Your task to perform on an android device: change notification settings in the gmail app Image 0: 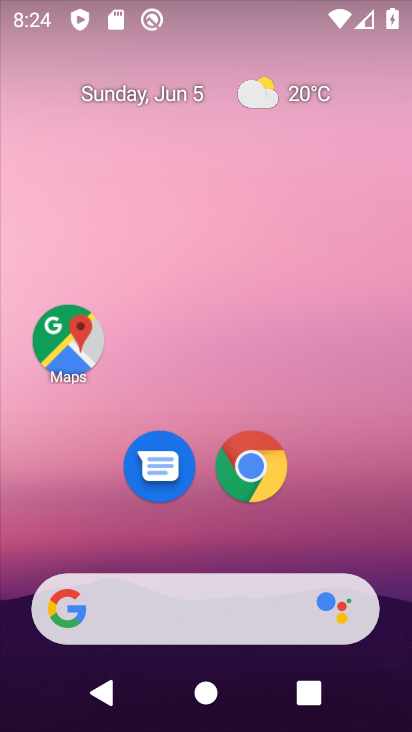
Step 0: drag from (176, 548) to (177, 185)
Your task to perform on an android device: change notification settings in the gmail app Image 1: 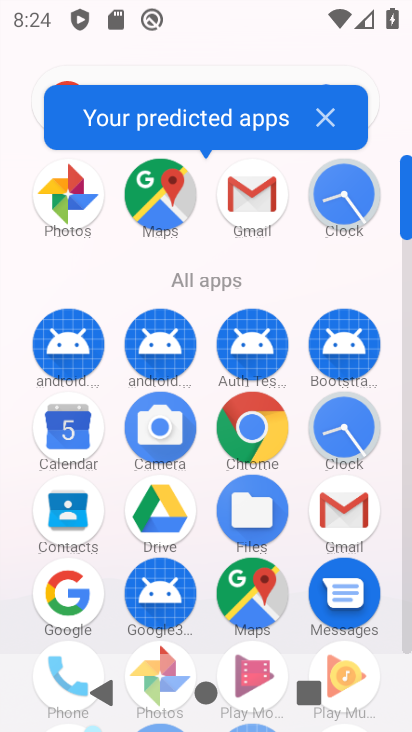
Step 1: click (261, 197)
Your task to perform on an android device: change notification settings in the gmail app Image 2: 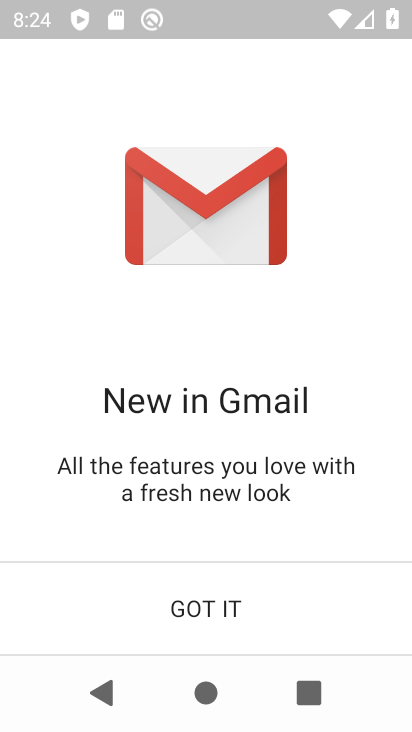
Step 2: click (215, 612)
Your task to perform on an android device: change notification settings in the gmail app Image 3: 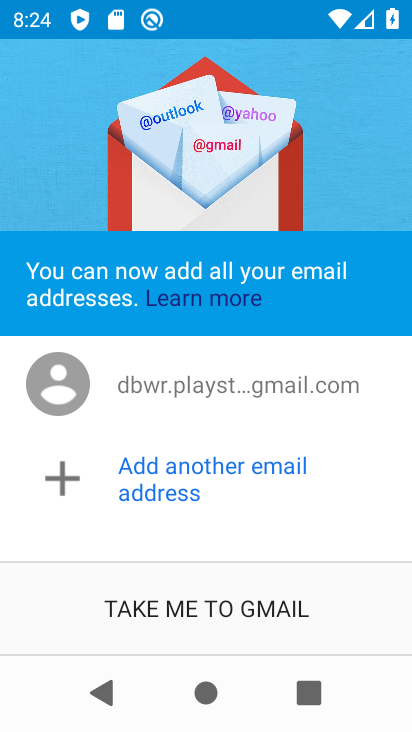
Step 3: click (133, 598)
Your task to perform on an android device: change notification settings in the gmail app Image 4: 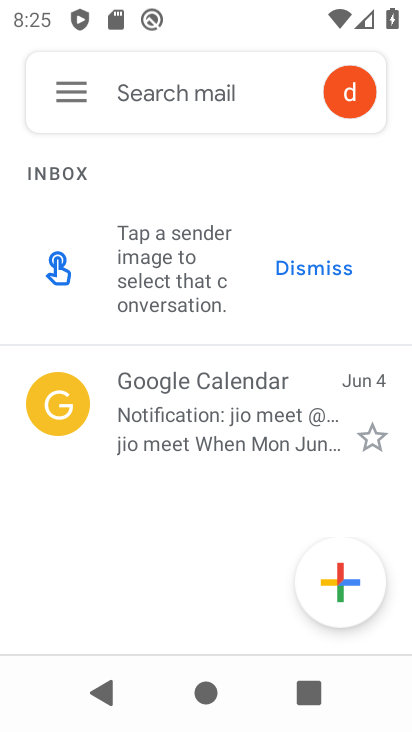
Step 4: click (75, 103)
Your task to perform on an android device: change notification settings in the gmail app Image 5: 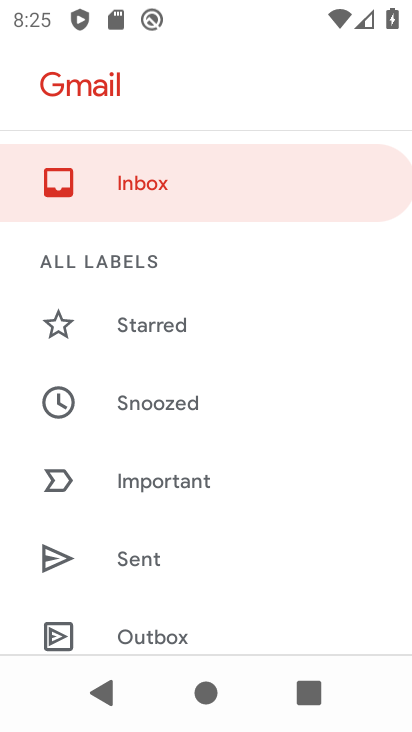
Step 5: drag from (226, 565) to (204, 151)
Your task to perform on an android device: change notification settings in the gmail app Image 6: 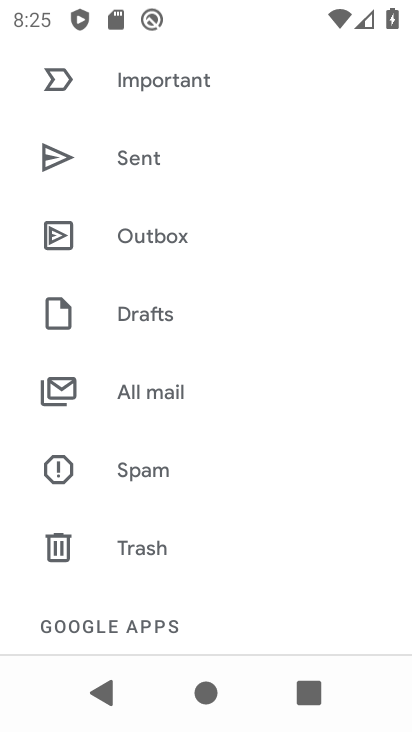
Step 6: drag from (206, 536) to (200, 63)
Your task to perform on an android device: change notification settings in the gmail app Image 7: 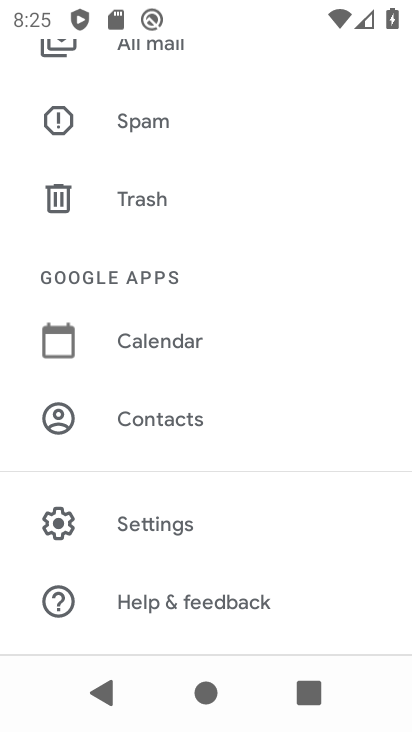
Step 7: click (185, 537)
Your task to perform on an android device: change notification settings in the gmail app Image 8: 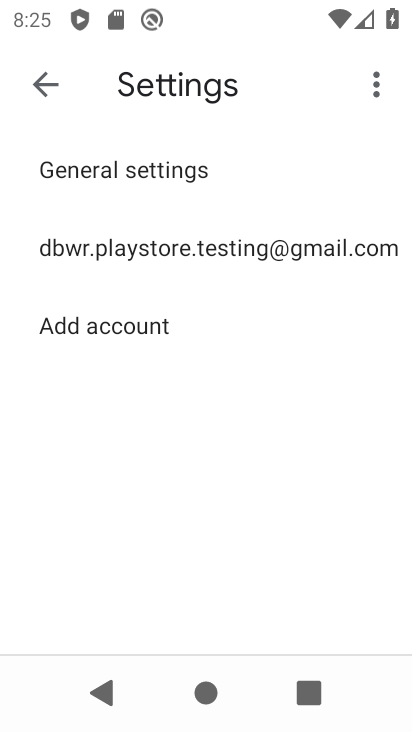
Step 8: click (137, 247)
Your task to perform on an android device: change notification settings in the gmail app Image 9: 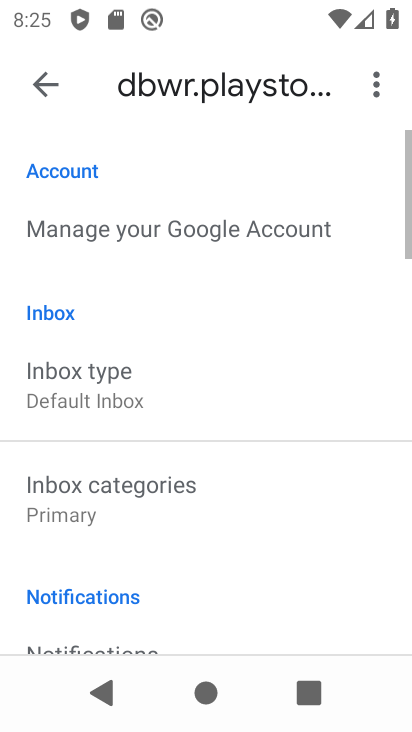
Step 9: drag from (179, 597) to (180, 328)
Your task to perform on an android device: change notification settings in the gmail app Image 10: 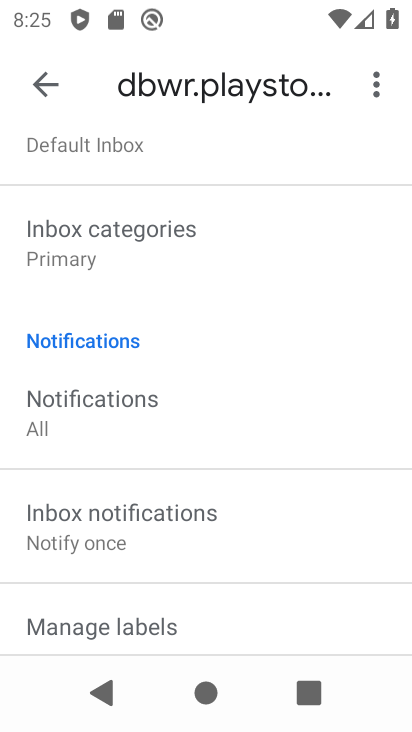
Step 10: drag from (120, 576) to (144, 346)
Your task to perform on an android device: change notification settings in the gmail app Image 11: 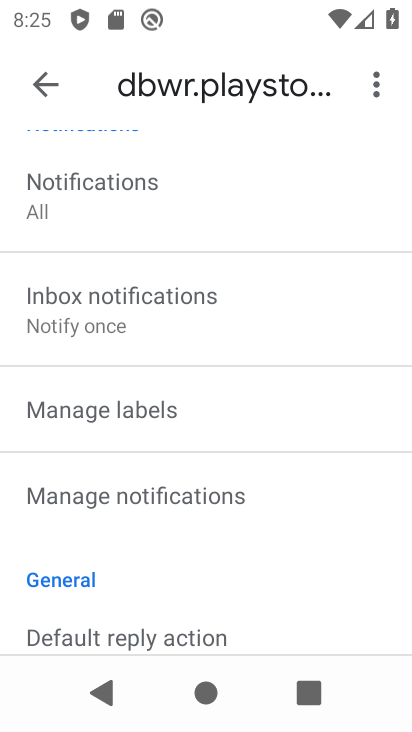
Step 11: click (132, 496)
Your task to perform on an android device: change notification settings in the gmail app Image 12: 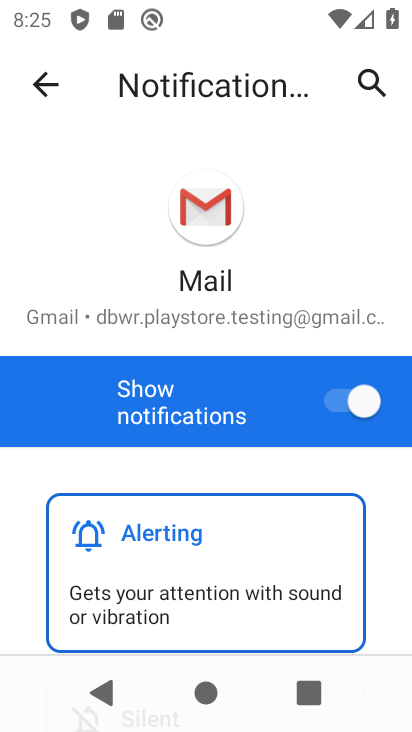
Step 12: click (332, 405)
Your task to perform on an android device: change notification settings in the gmail app Image 13: 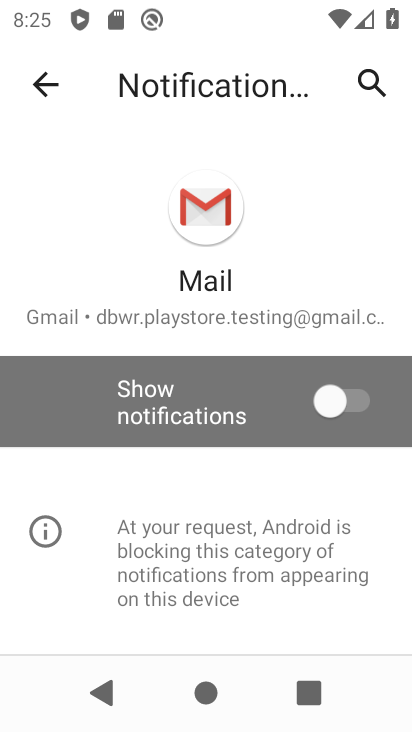
Step 13: task complete